Your task to perform on an android device: Show me the alarms in the clock app Image 0: 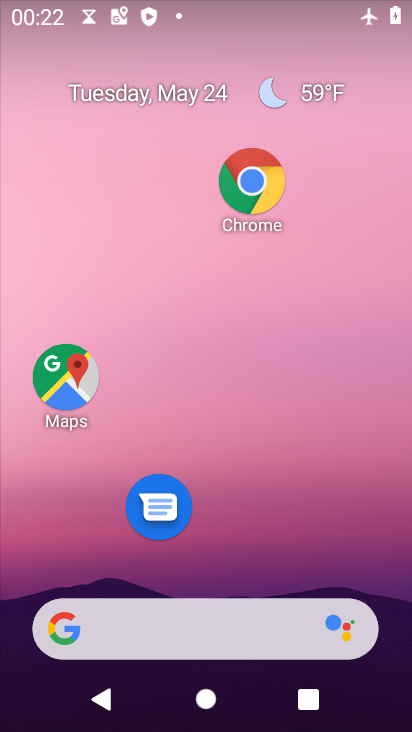
Step 0: drag from (283, 408) to (292, 275)
Your task to perform on an android device: Show me the alarms in the clock app Image 1: 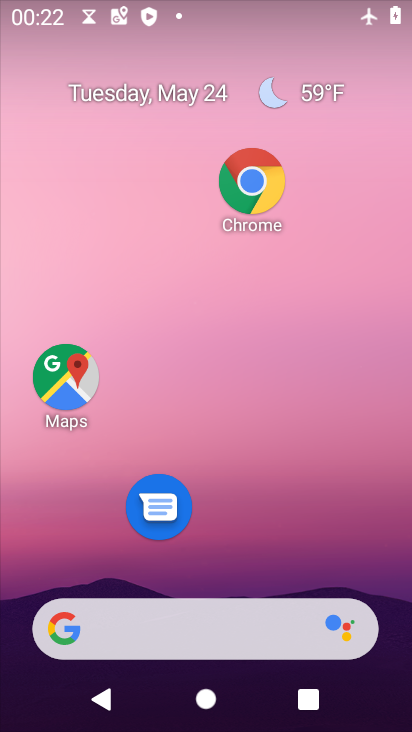
Step 1: drag from (274, 570) to (278, 146)
Your task to perform on an android device: Show me the alarms in the clock app Image 2: 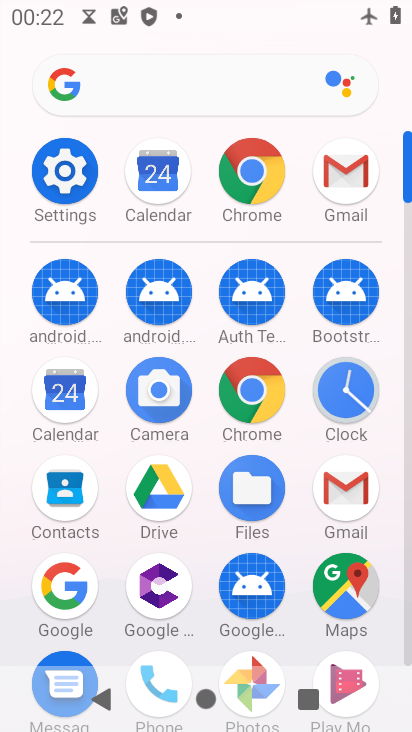
Step 2: click (329, 399)
Your task to perform on an android device: Show me the alarms in the clock app Image 3: 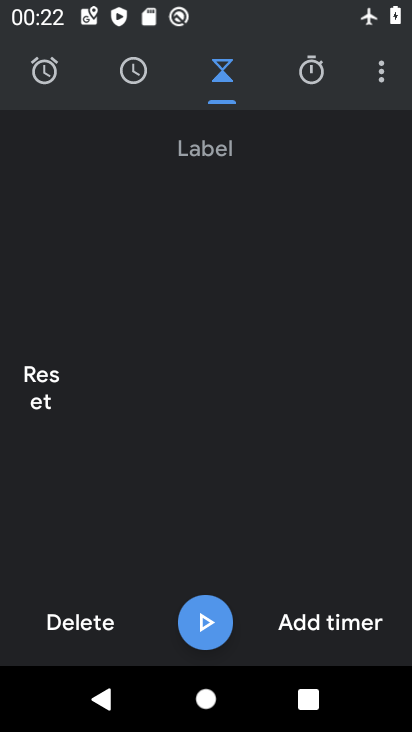
Step 3: click (45, 65)
Your task to perform on an android device: Show me the alarms in the clock app Image 4: 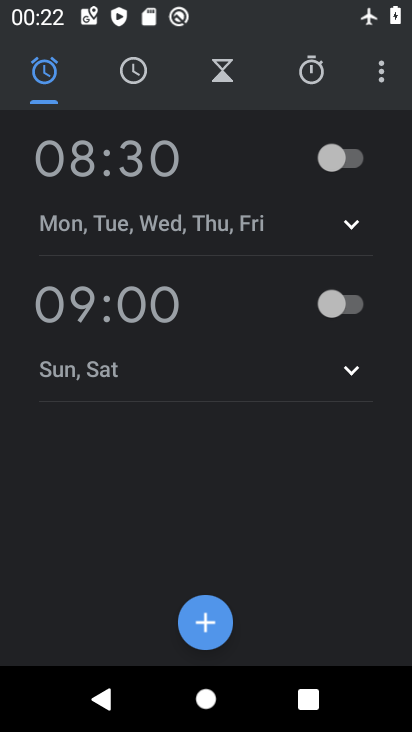
Step 4: task complete